Your task to perform on an android device: Open the calendar and show me this week's events Image 0: 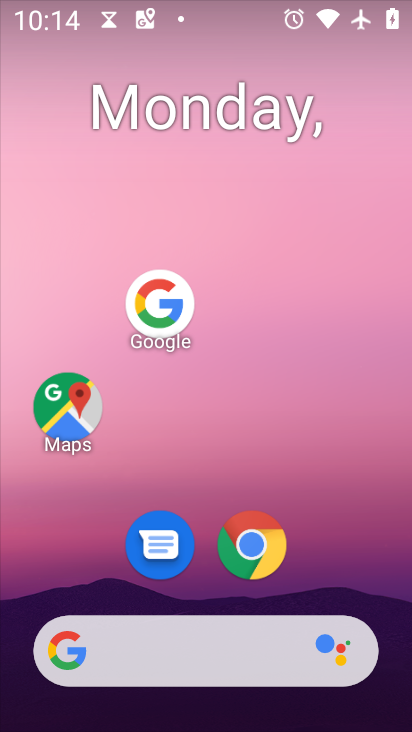
Step 0: press home button
Your task to perform on an android device: Open the calendar and show me this week's events Image 1: 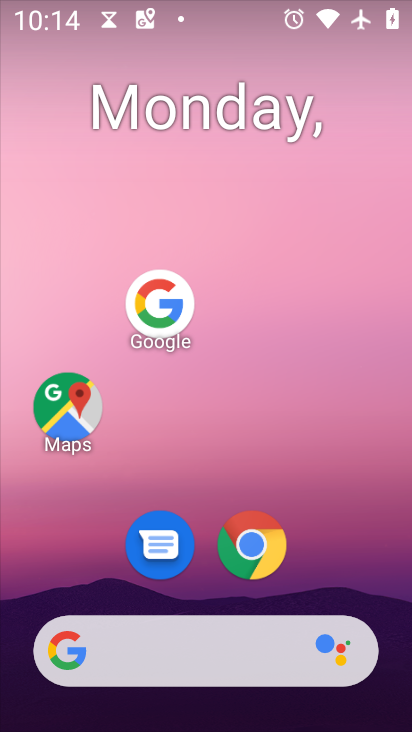
Step 1: drag from (146, 642) to (292, 134)
Your task to perform on an android device: Open the calendar and show me this week's events Image 2: 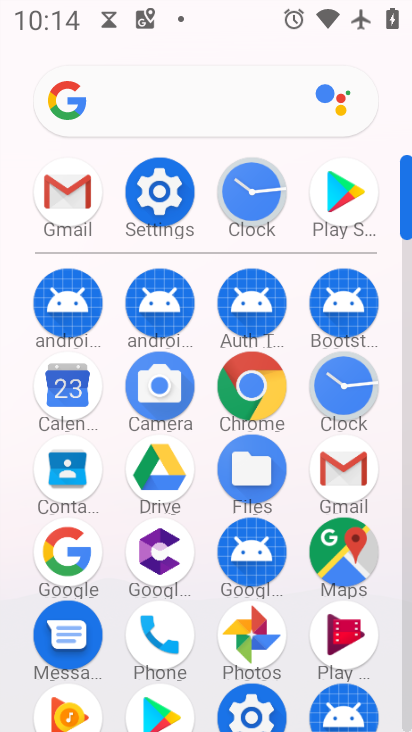
Step 2: click (78, 385)
Your task to perform on an android device: Open the calendar and show me this week's events Image 3: 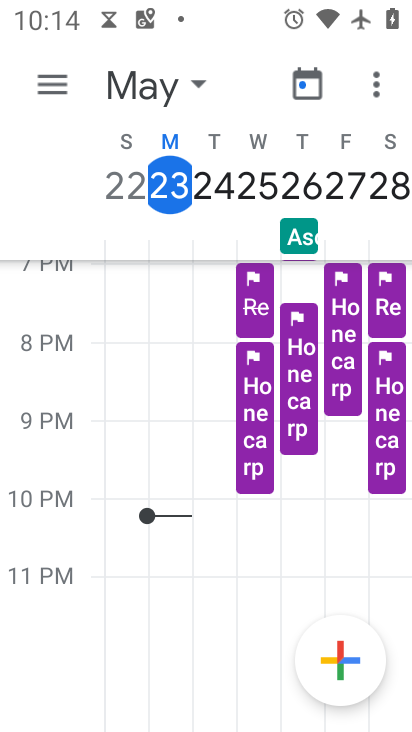
Step 3: click (138, 81)
Your task to perform on an android device: Open the calendar and show me this week's events Image 4: 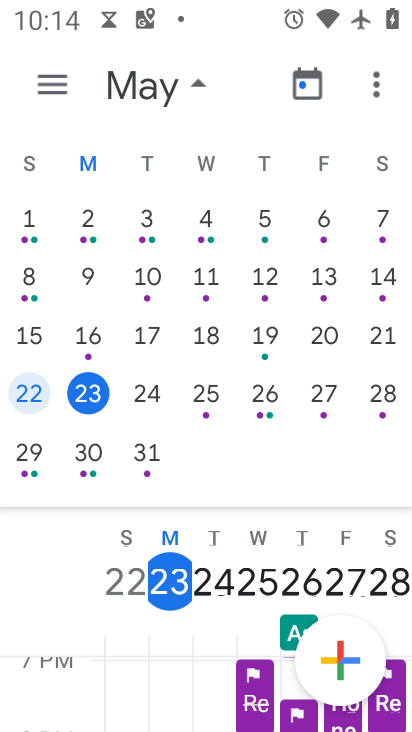
Step 4: click (56, 84)
Your task to perform on an android device: Open the calendar and show me this week's events Image 5: 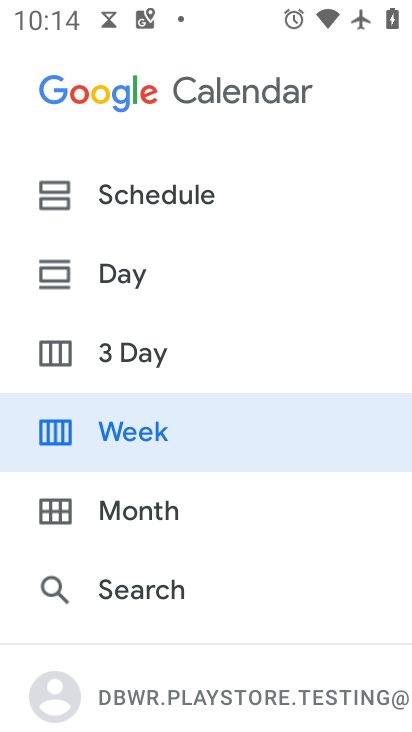
Step 5: click (123, 197)
Your task to perform on an android device: Open the calendar and show me this week's events Image 6: 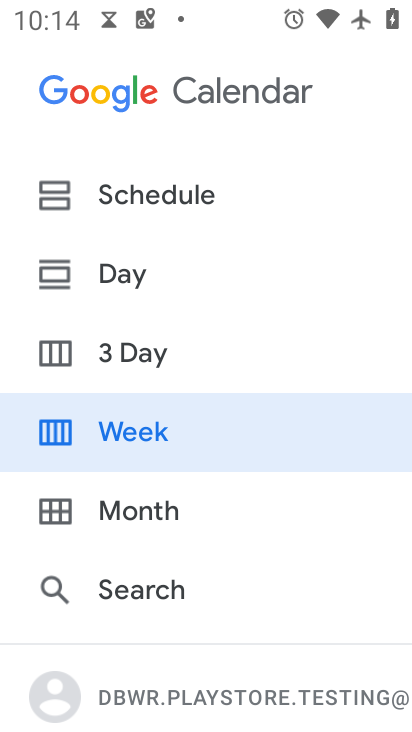
Step 6: click (151, 200)
Your task to perform on an android device: Open the calendar and show me this week's events Image 7: 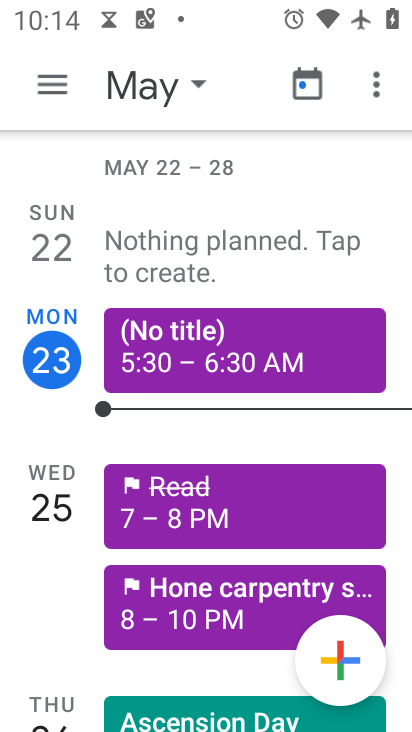
Step 7: click (181, 518)
Your task to perform on an android device: Open the calendar and show me this week's events Image 8: 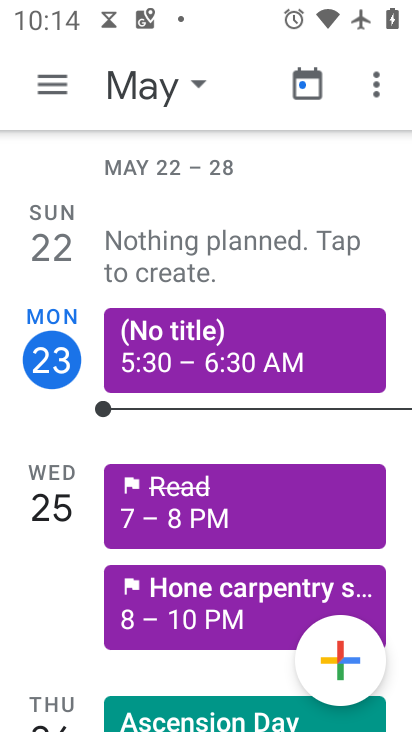
Step 8: click (213, 514)
Your task to perform on an android device: Open the calendar and show me this week's events Image 9: 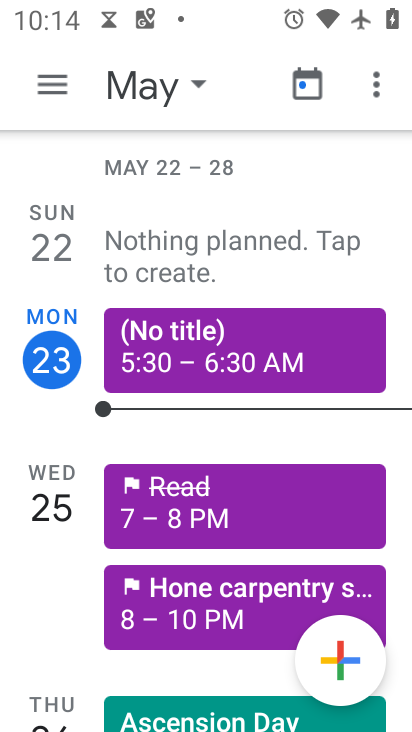
Step 9: click (211, 515)
Your task to perform on an android device: Open the calendar and show me this week's events Image 10: 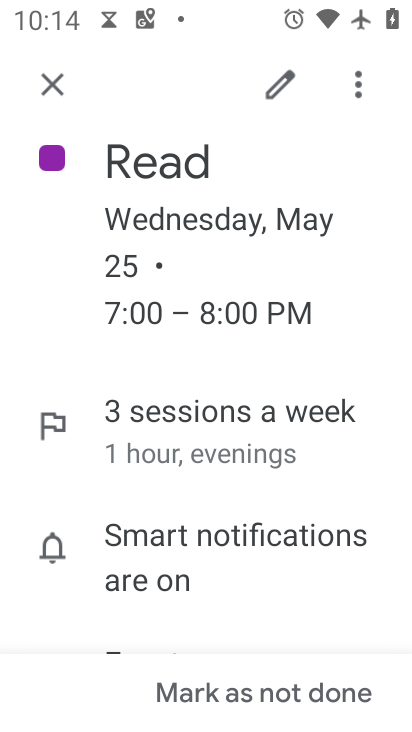
Step 10: task complete